Your task to perform on an android device: make emails show in primary in the gmail app Image 0: 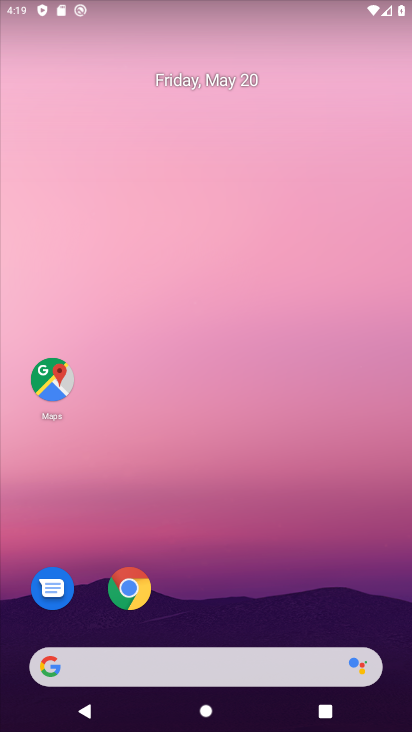
Step 0: drag from (262, 604) to (299, 126)
Your task to perform on an android device: make emails show in primary in the gmail app Image 1: 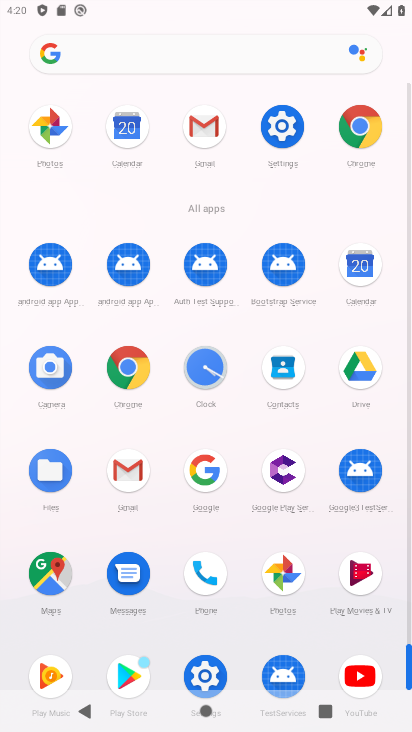
Step 1: click (125, 466)
Your task to perform on an android device: make emails show in primary in the gmail app Image 2: 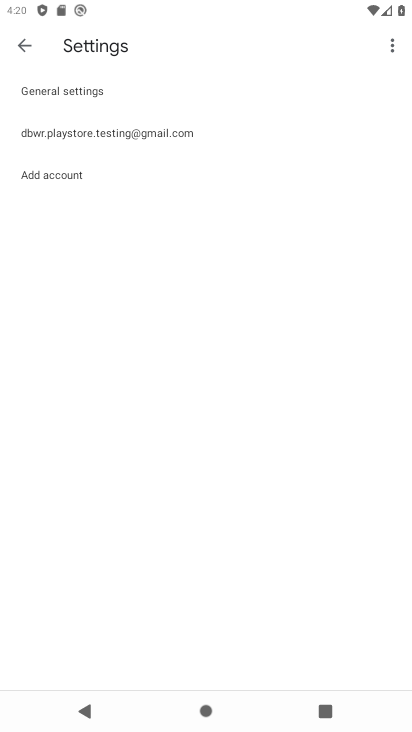
Step 2: click (25, 49)
Your task to perform on an android device: make emails show in primary in the gmail app Image 3: 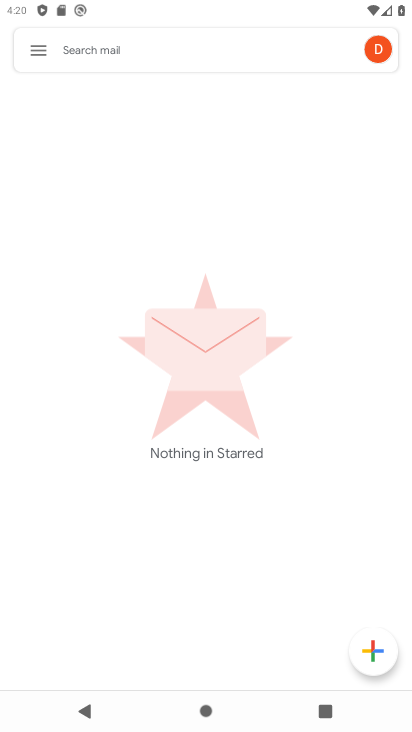
Step 3: click (25, 49)
Your task to perform on an android device: make emails show in primary in the gmail app Image 4: 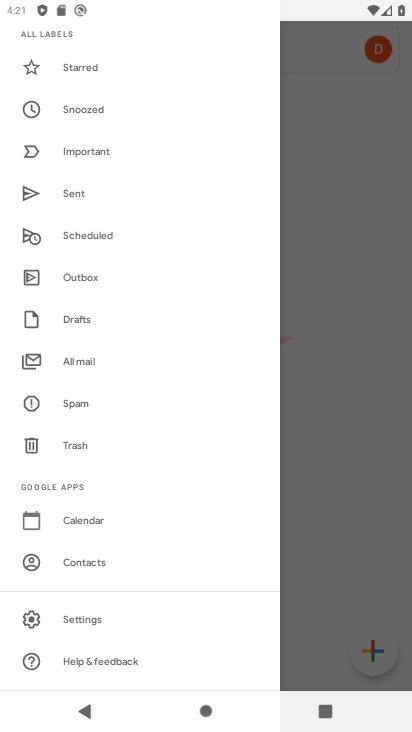
Step 4: drag from (79, 82) to (95, 449)
Your task to perform on an android device: make emails show in primary in the gmail app Image 5: 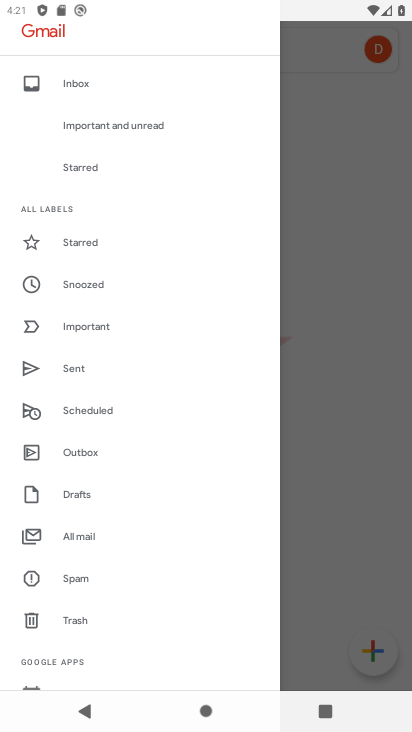
Step 5: click (84, 84)
Your task to perform on an android device: make emails show in primary in the gmail app Image 6: 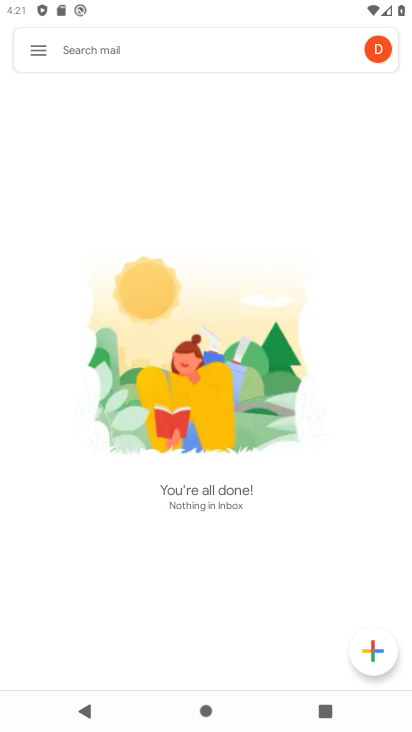
Step 6: task complete